Your task to perform on an android device: Go to location settings Image 0: 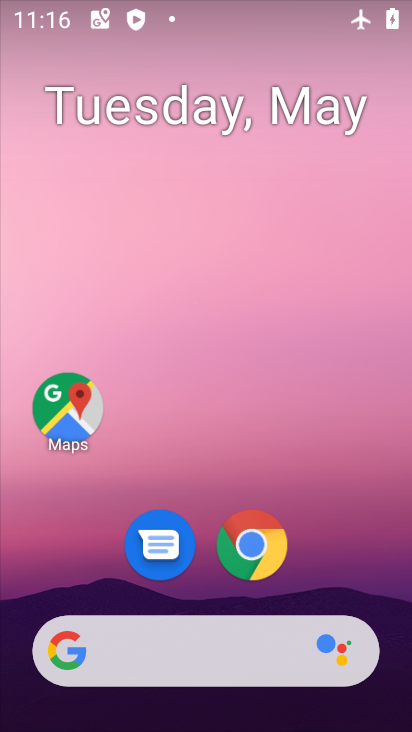
Step 0: drag from (201, 587) to (169, 100)
Your task to perform on an android device: Go to location settings Image 1: 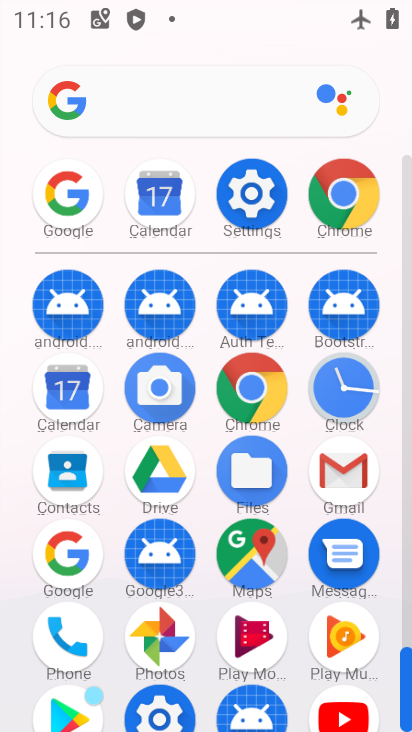
Step 1: click (259, 178)
Your task to perform on an android device: Go to location settings Image 2: 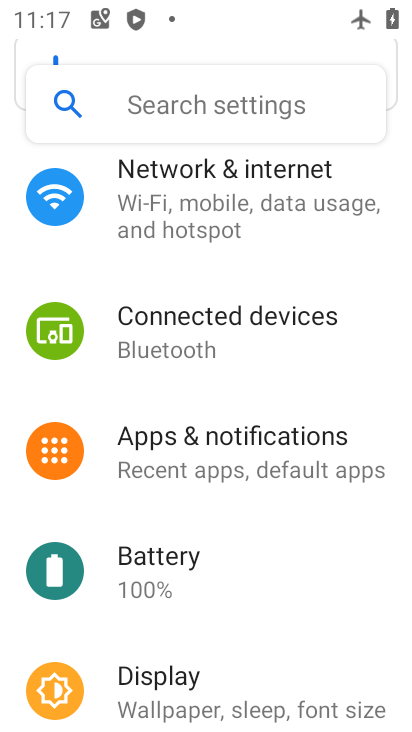
Step 2: drag from (238, 554) to (239, 447)
Your task to perform on an android device: Go to location settings Image 3: 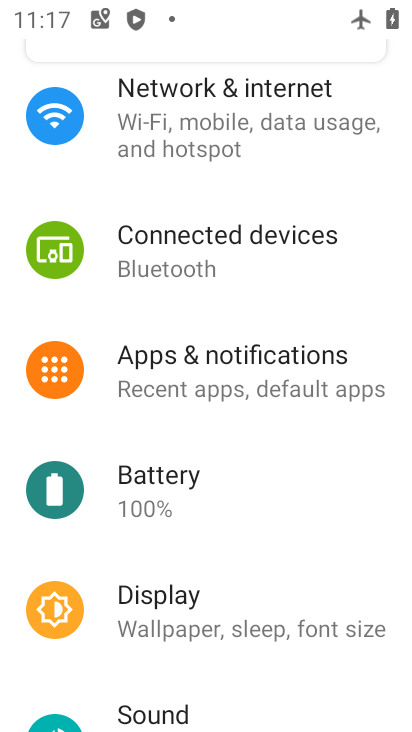
Step 3: drag from (199, 578) to (201, 303)
Your task to perform on an android device: Go to location settings Image 4: 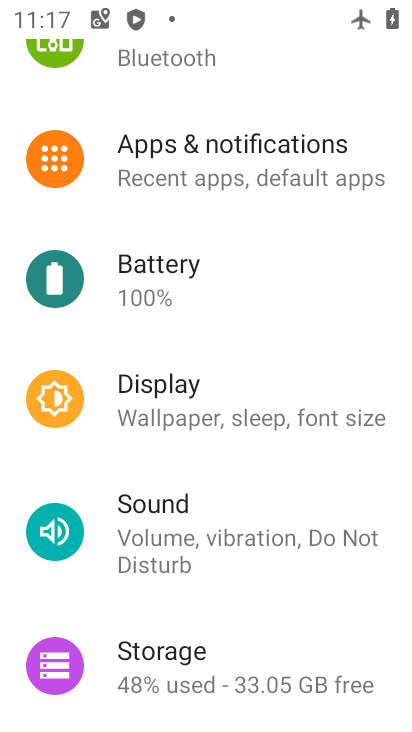
Step 4: drag from (245, 568) to (248, 345)
Your task to perform on an android device: Go to location settings Image 5: 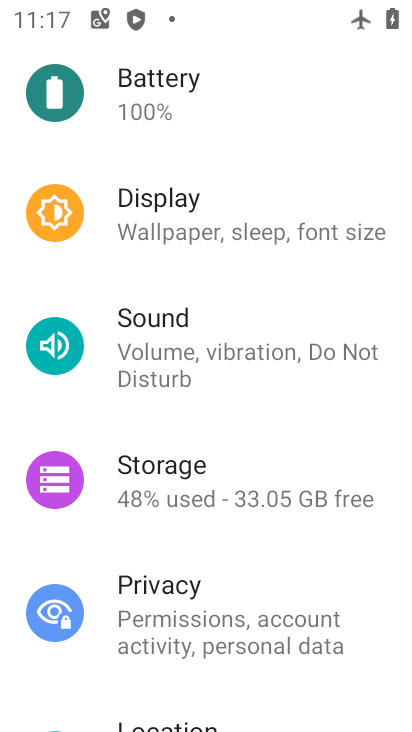
Step 5: drag from (212, 605) to (213, 274)
Your task to perform on an android device: Go to location settings Image 6: 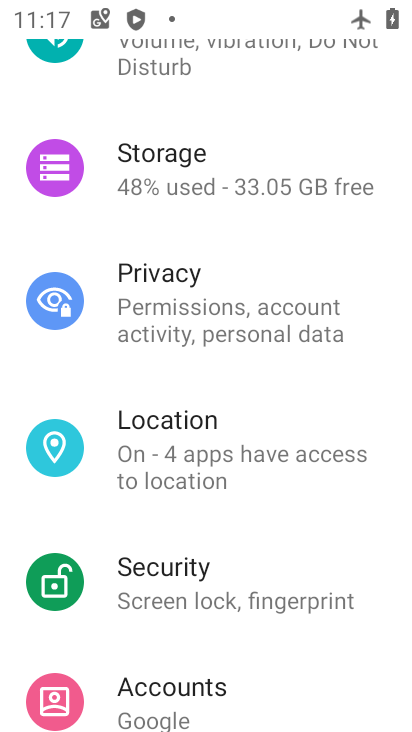
Step 6: click (231, 469)
Your task to perform on an android device: Go to location settings Image 7: 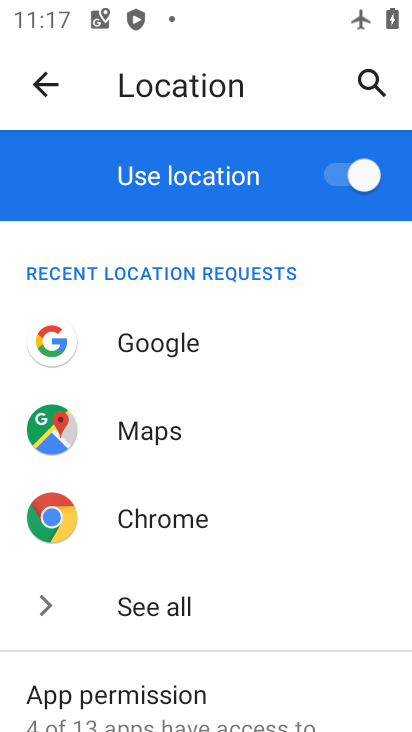
Step 7: task complete